Your task to perform on an android device: Open CNN.com Image 0: 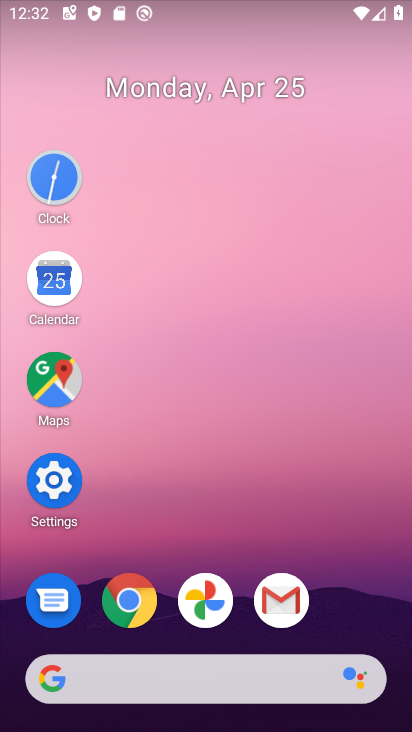
Step 0: click (137, 678)
Your task to perform on an android device: Open CNN.com Image 1: 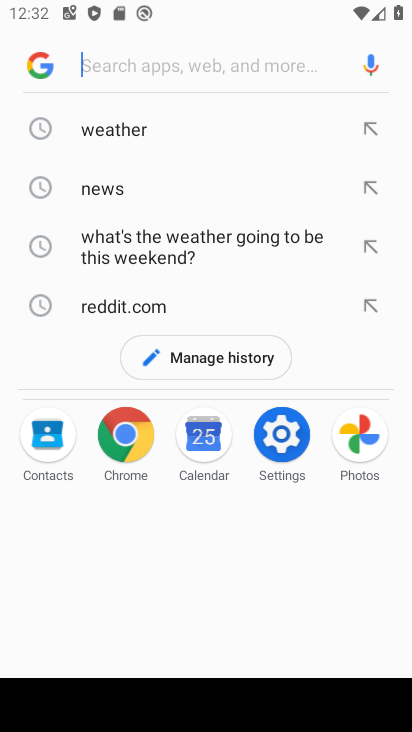
Step 1: type "CNN.com"
Your task to perform on an android device: Open CNN.com Image 2: 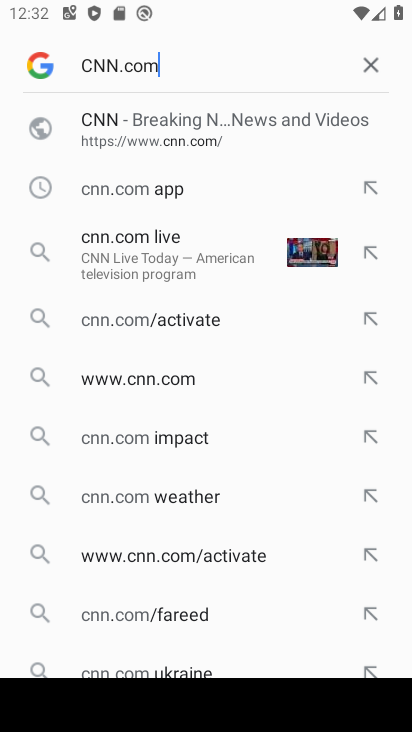
Step 2: click (159, 125)
Your task to perform on an android device: Open CNN.com Image 3: 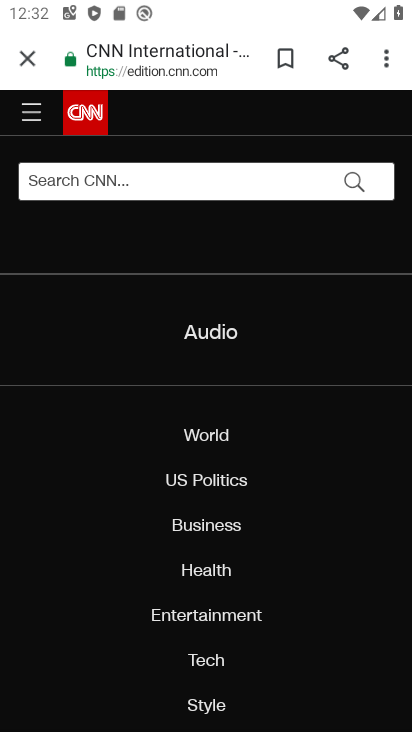
Step 3: task complete